Your task to perform on an android device: Open battery settings Image 0: 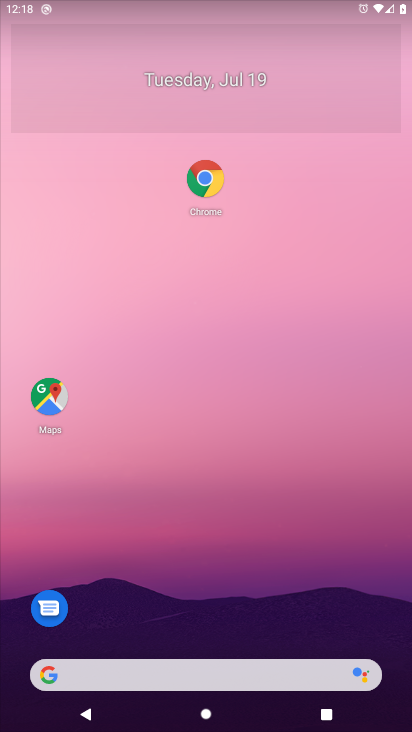
Step 0: drag from (22, 687) to (273, 135)
Your task to perform on an android device: Open battery settings Image 1: 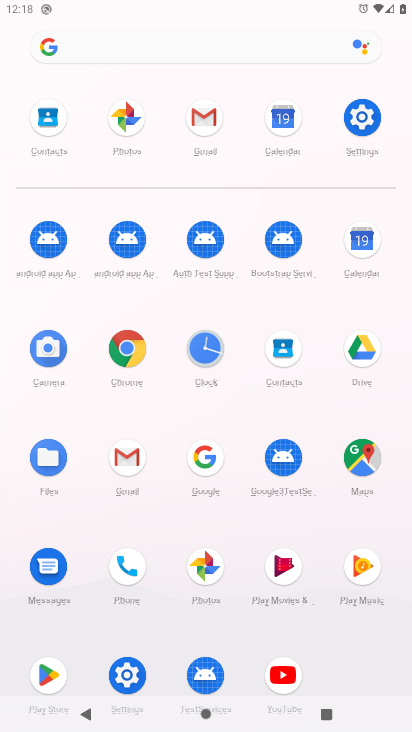
Step 1: click (141, 681)
Your task to perform on an android device: Open battery settings Image 2: 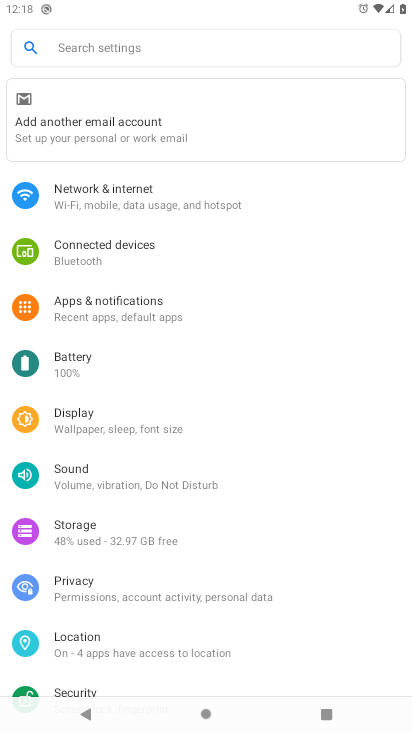
Step 2: click (51, 363)
Your task to perform on an android device: Open battery settings Image 3: 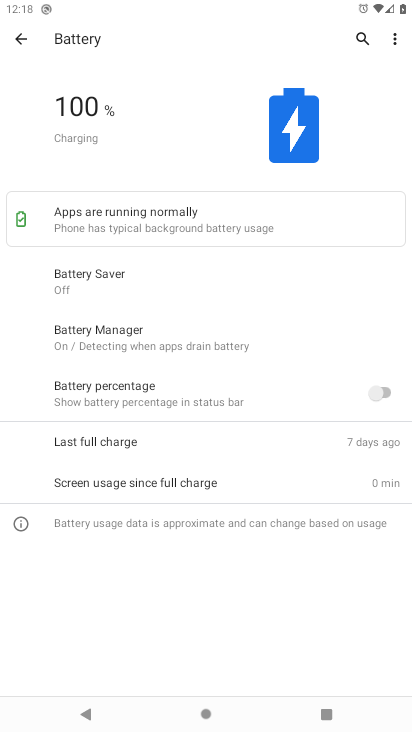
Step 3: task complete